Your task to perform on an android device: toggle javascript in the chrome app Image 0: 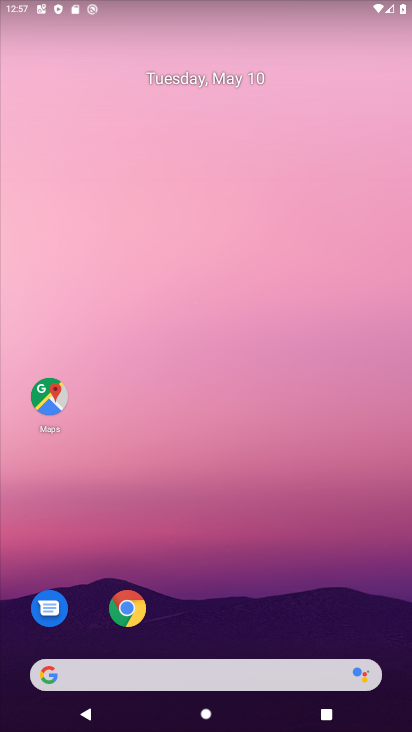
Step 0: click (244, 478)
Your task to perform on an android device: toggle javascript in the chrome app Image 1: 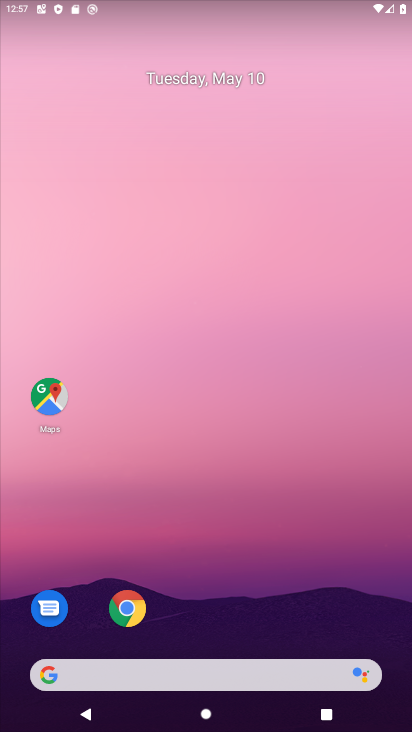
Step 1: drag from (307, 621) to (341, 128)
Your task to perform on an android device: toggle javascript in the chrome app Image 2: 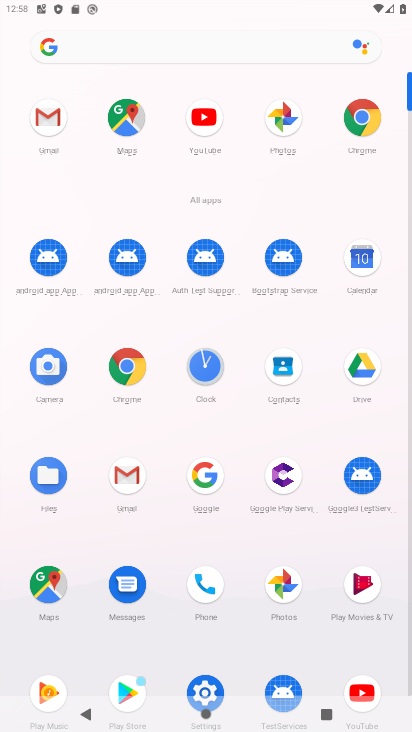
Step 2: click (377, 129)
Your task to perform on an android device: toggle javascript in the chrome app Image 3: 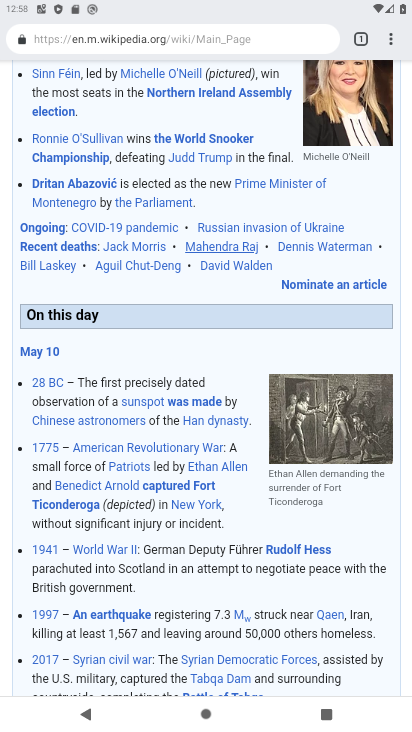
Step 3: drag from (391, 41) to (274, 469)
Your task to perform on an android device: toggle javascript in the chrome app Image 4: 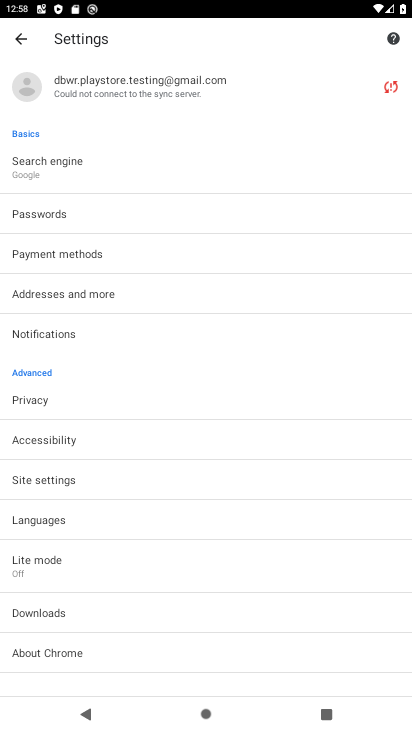
Step 4: click (92, 483)
Your task to perform on an android device: toggle javascript in the chrome app Image 5: 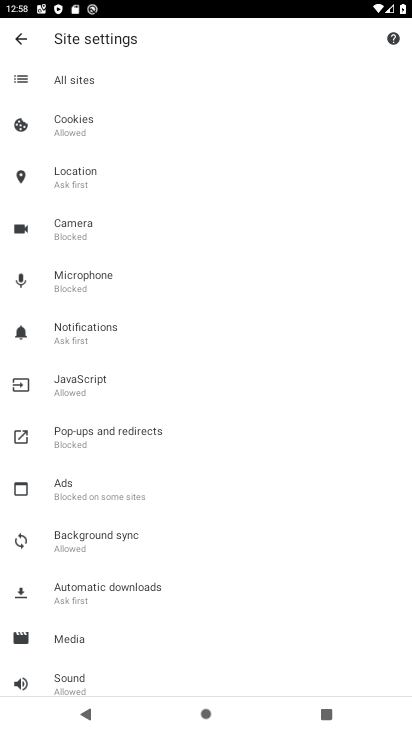
Step 5: click (133, 390)
Your task to perform on an android device: toggle javascript in the chrome app Image 6: 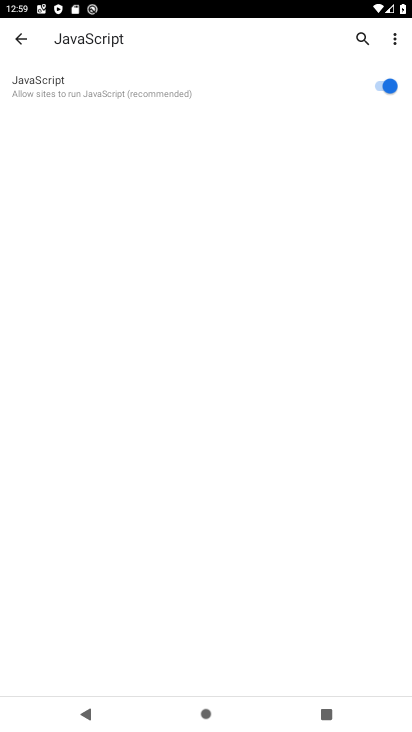
Step 6: click (383, 89)
Your task to perform on an android device: toggle javascript in the chrome app Image 7: 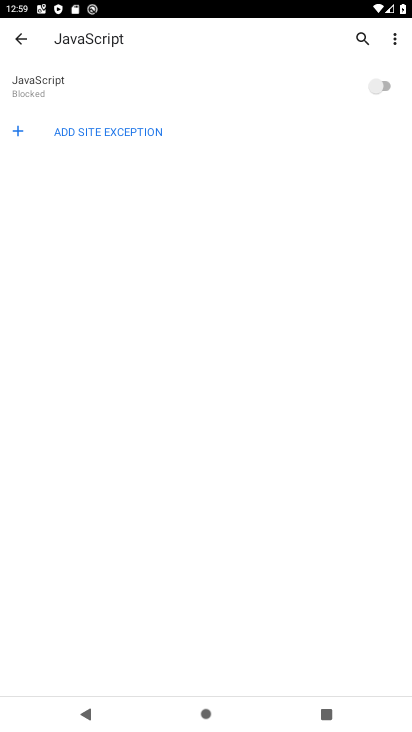
Step 7: task complete